Your task to perform on an android device: clear history in the chrome app Image 0: 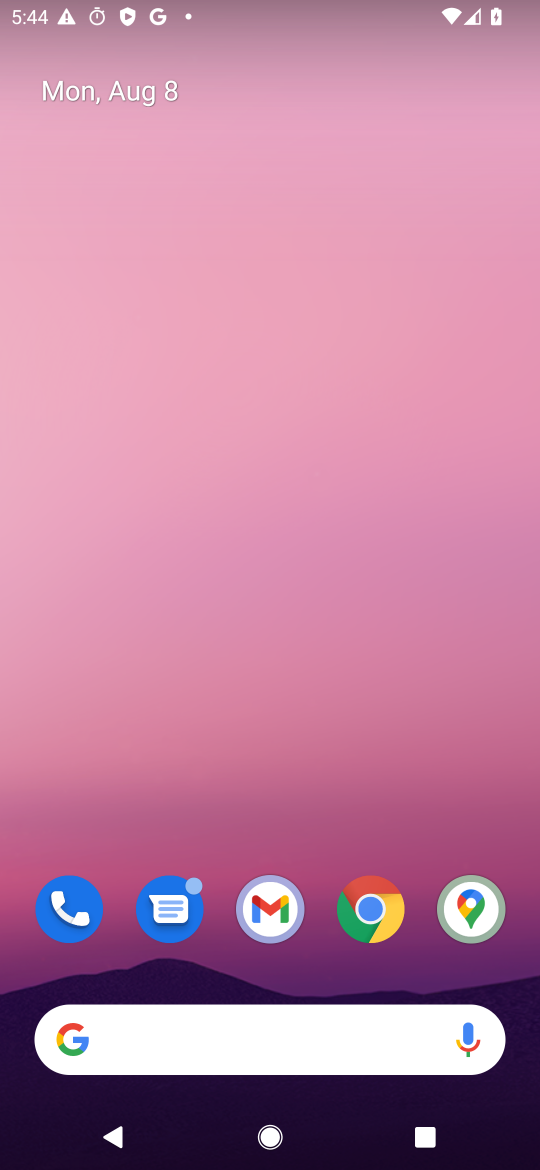
Step 0: click (367, 909)
Your task to perform on an android device: clear history in the chrome app Image 1: 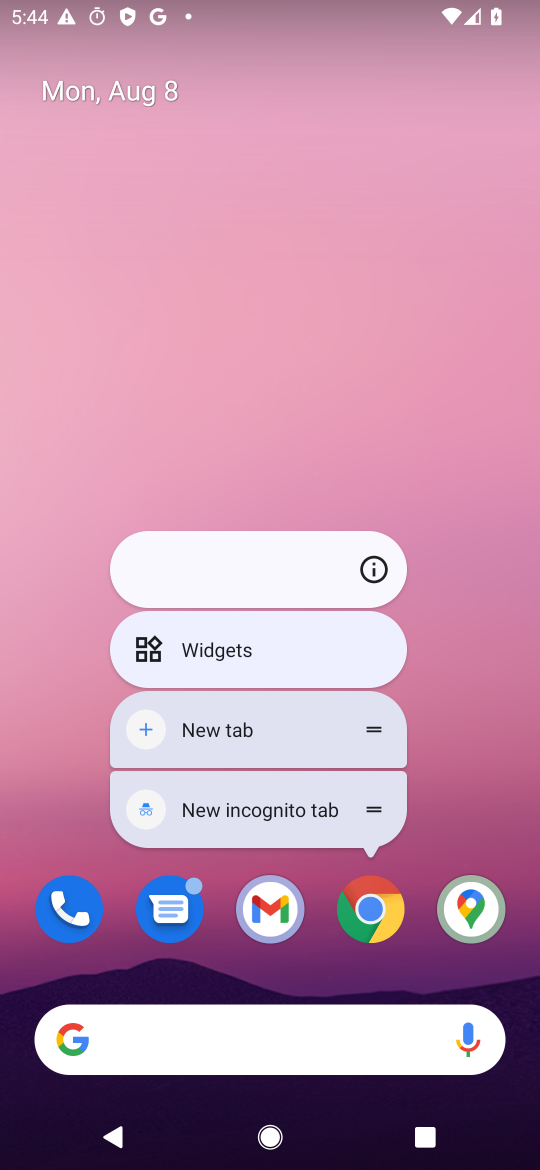
Step 1: click (367, 911)
Your task to perform on an android device: clear history in the chrome app Image 2: 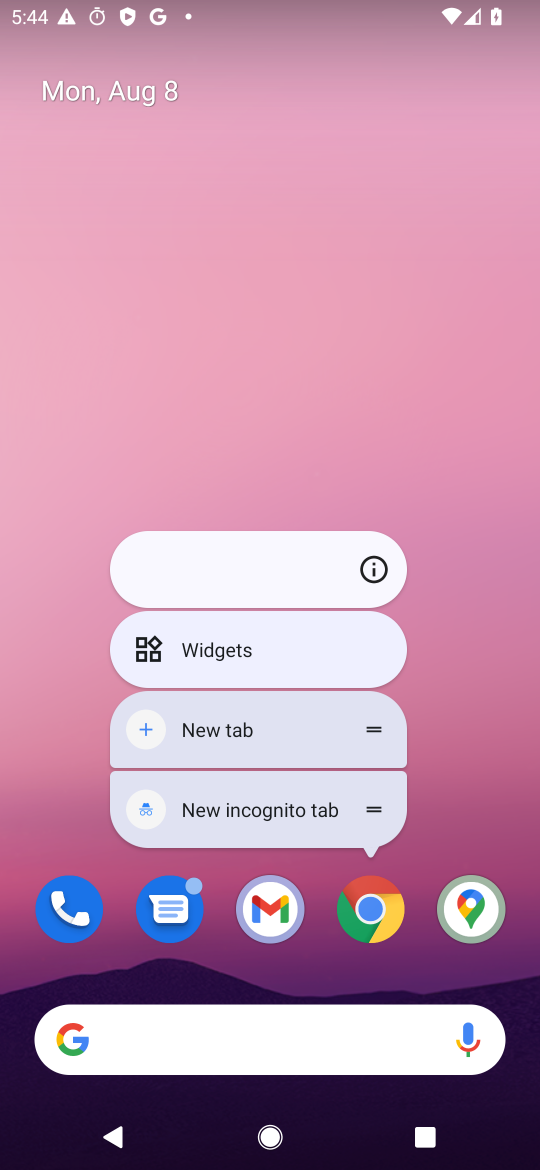
Step 2: click (367, 912)
Your task to perform on an android device: clear history in the chrome app Image 3: 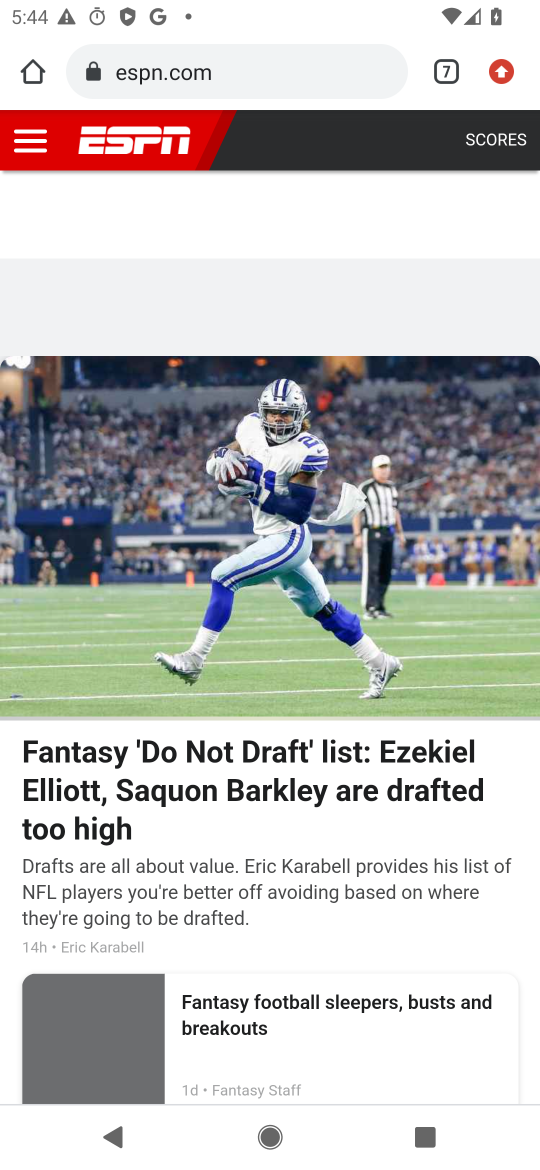
Step 3: drag from (503, 81) to (310, 375)
Your task to perform on an android device: clear history in the chrome app Image 4: 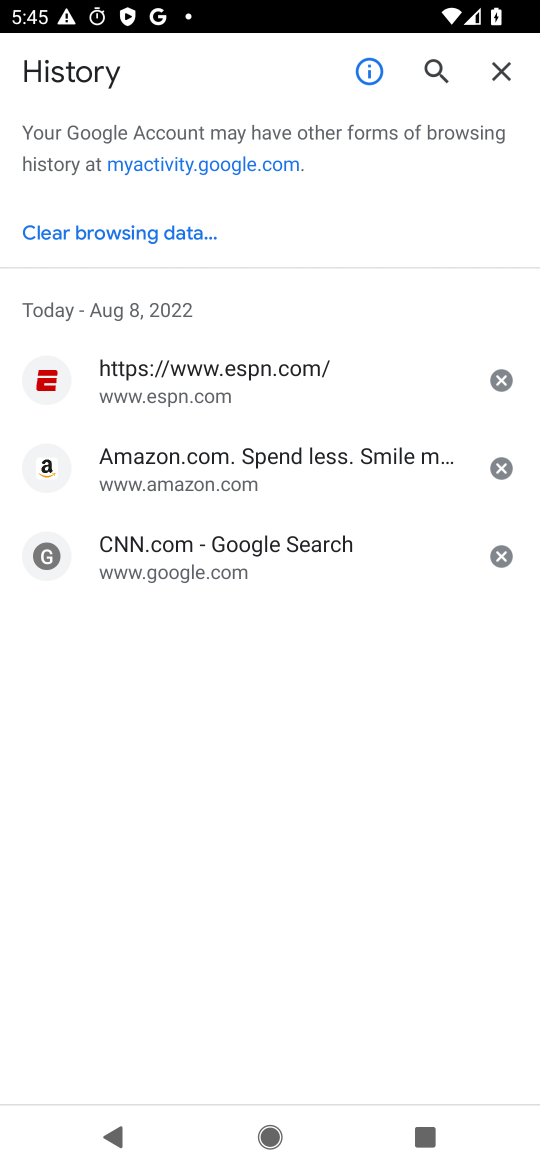
Step 4: click (127, 229)
Your task to perform on an android device: clear history in the chrome app Image 5: 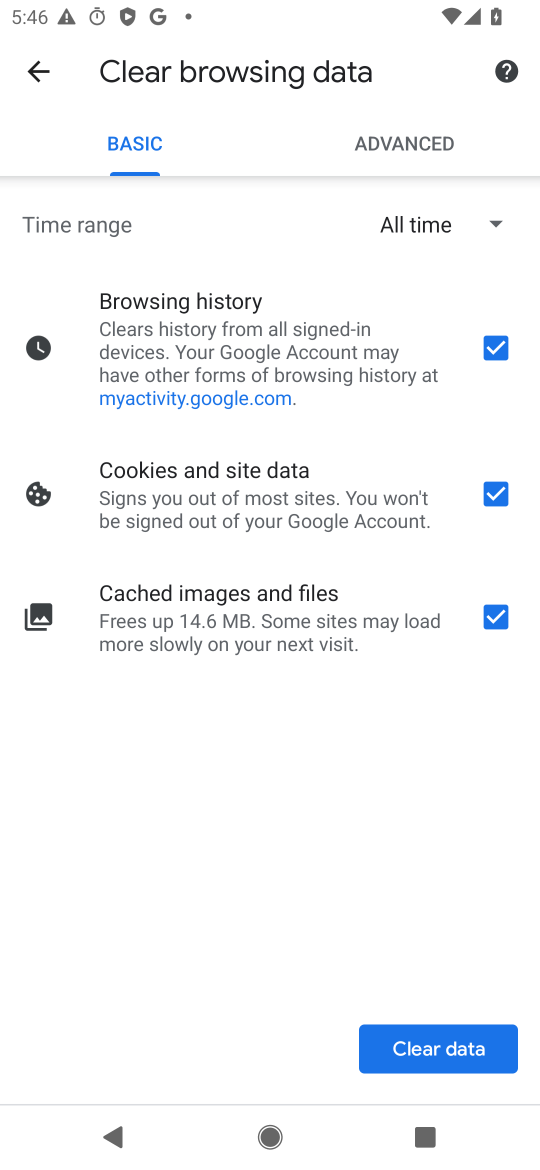
Step 5: click (452, 1047)
Your task to perform on an android device: clear history in the chrome app Image 6: 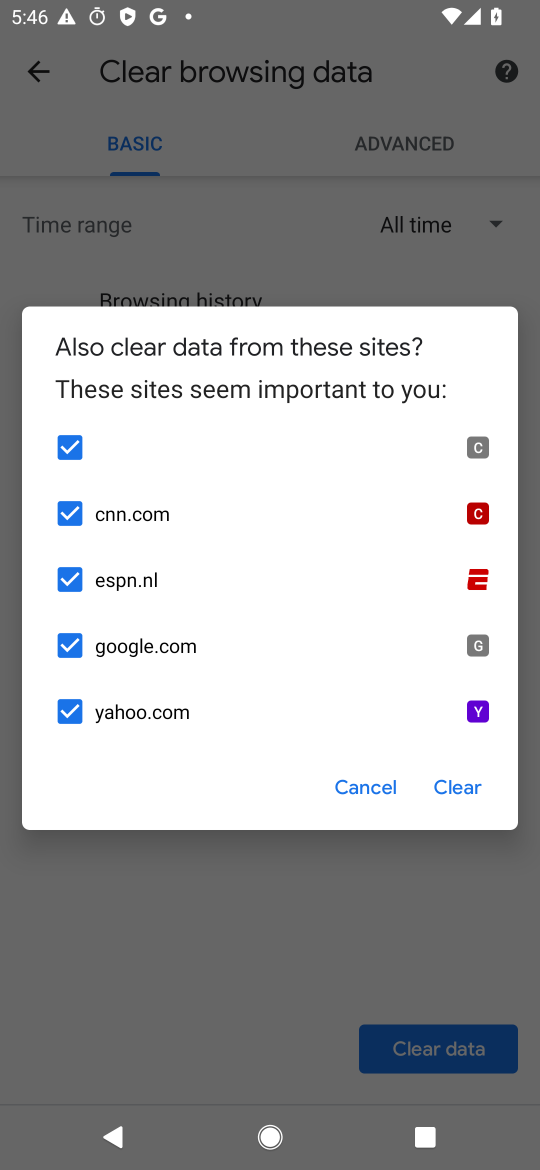
Step 6: click (462, 777)
Your task to perform on an android device: clear history in the chrome app Image 7: 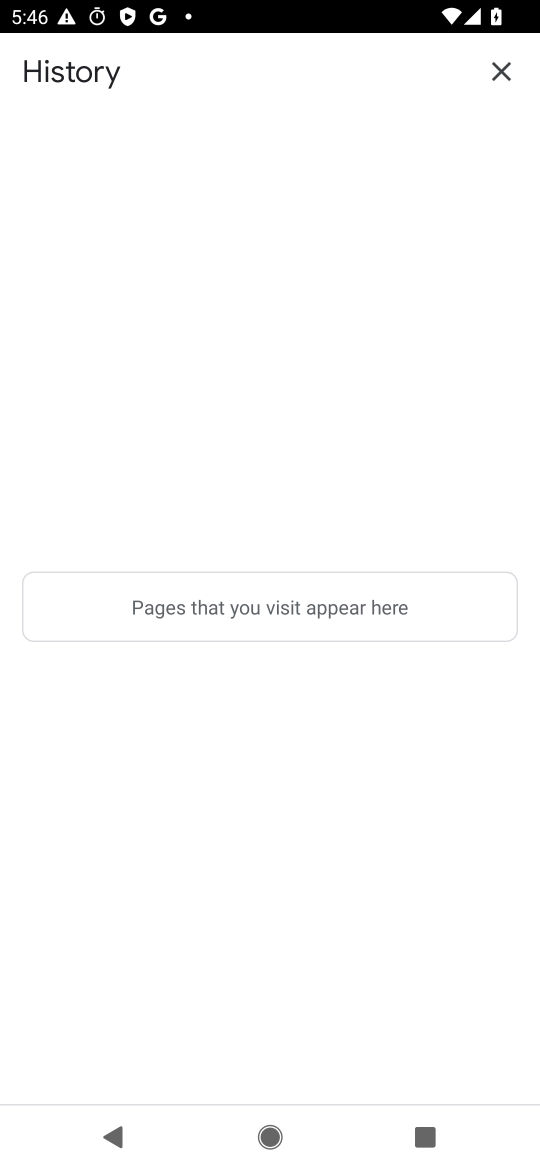
Step 7: task complete